Your task to perform on an android device: turn vacation reply on in the gmail app Image 0: 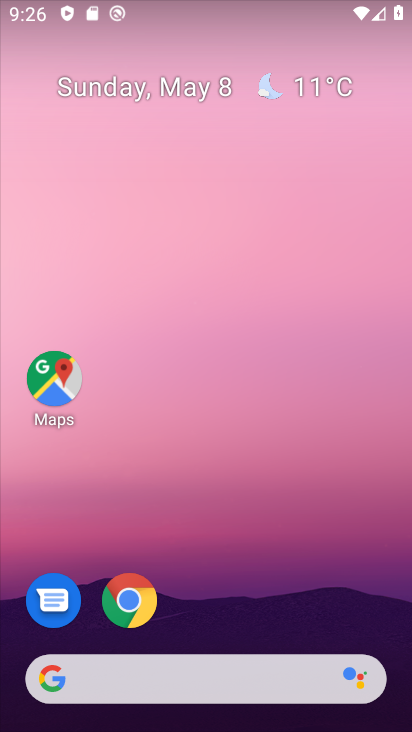
Step 0: drag from (245, 532) to (209, 0)
Your task to perform on an android device: turn vacation reply on in the gmail app Image 1: 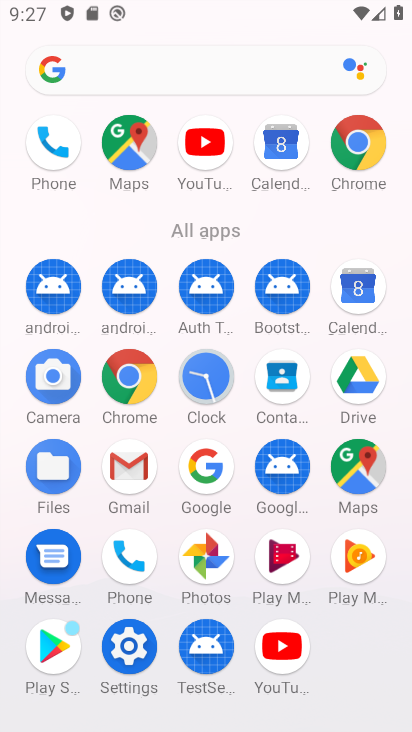
Step 1: click (127, 453)
Your task to perform on an android device: turn vacation reply on in the gmail app Image 2: 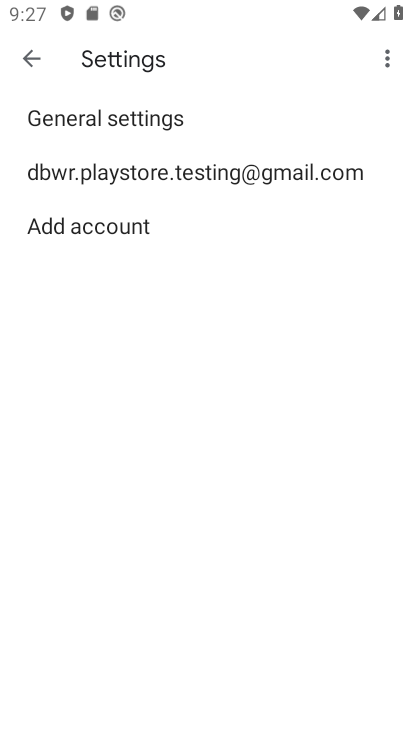
Step 2: click (106, 177)
Your task to perform on an android device: turn vacation reply on in the gmail app Image 3: 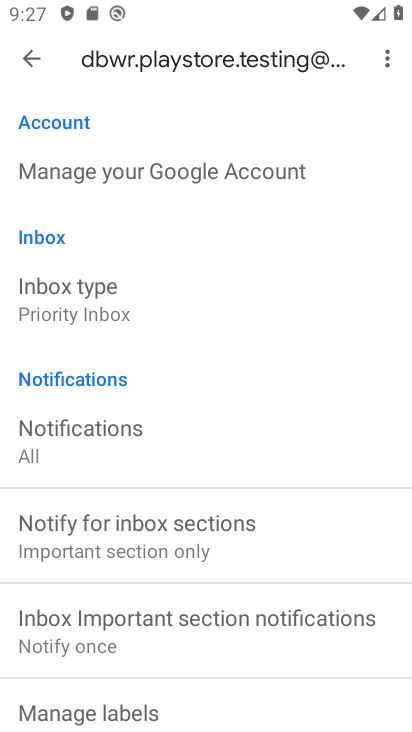
Step 3: drag from (211, 614) to (245, 138)
Your task to perform on an android device: turn vacation reply on in the gmail app Image 4: 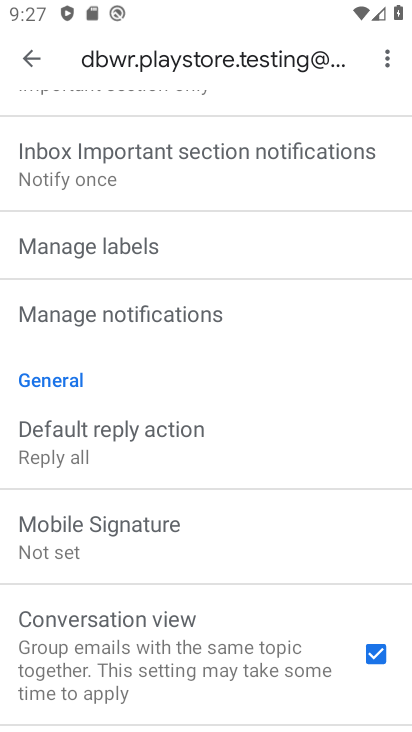
Step 4: drag from (218, 243) to (218, 185)
Your task to perform on an android device: turn vacation reply on in the gmail app Image 5: 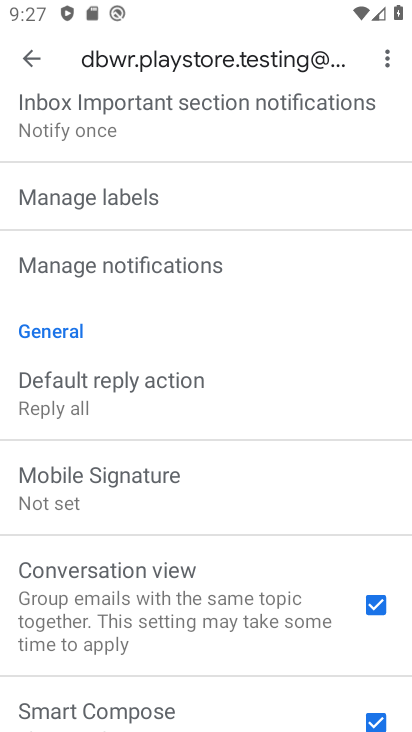
Step 5: drag from (241, 268) to (259, 115)
Your task to perform on an android device: turn vacation reply on in the gmail app Image 6: 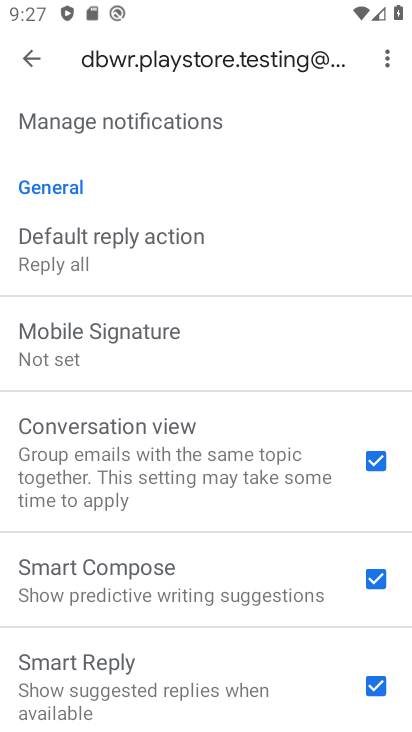
Step 6: drag from (178, 521) to (225, 144)
Your task to perform on an android device: turn vacation reply on in the gmail app Image 7: 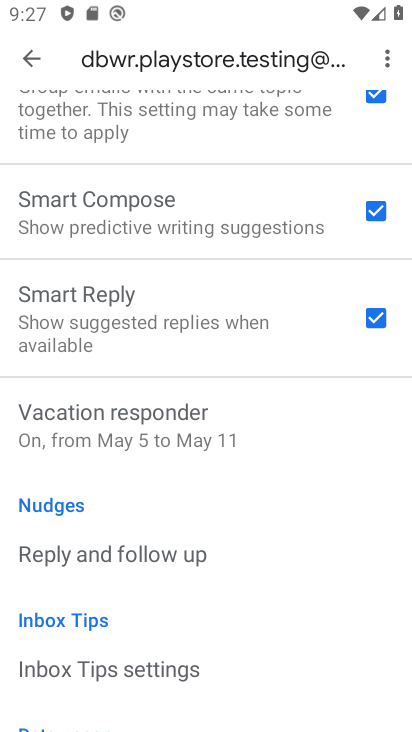
Step 7: click (151, 431)
Your task to perform on an android device: turn vacation reply on in the gmail app Image 8: 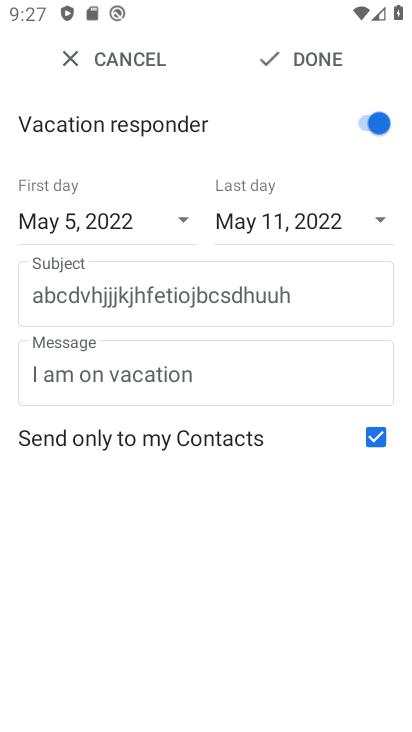
Step 8: click (299, 58)
Your task to perform on an android device: turn vacation reply on in the gmail app Image 9: 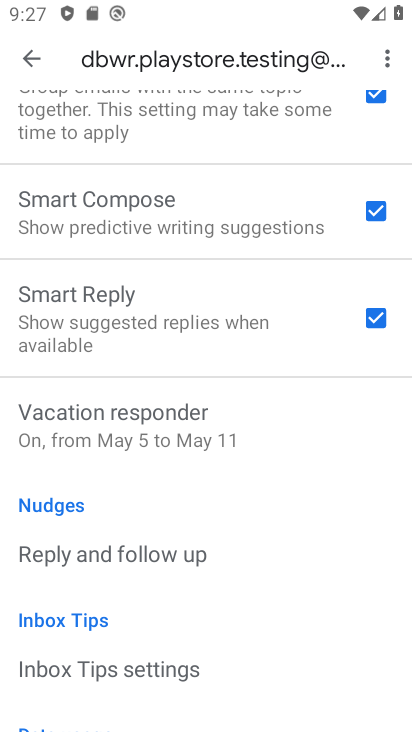
Step 9: task complete